Your task to perform on an android device: Open CNN.com Image 0: 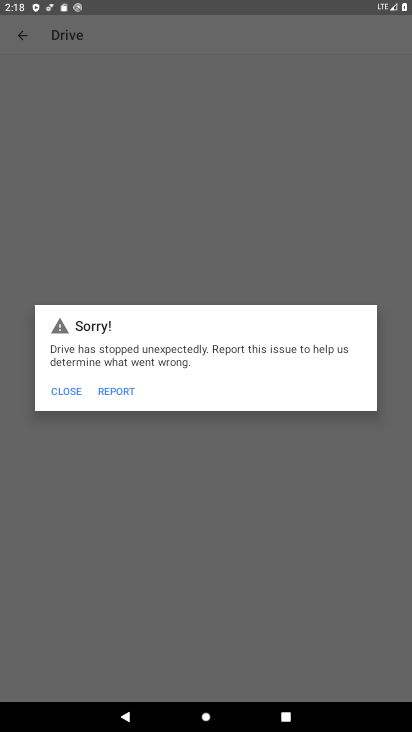
Step 0: press home button
Your task to perform on an android device: Open CNN.com Image 1: 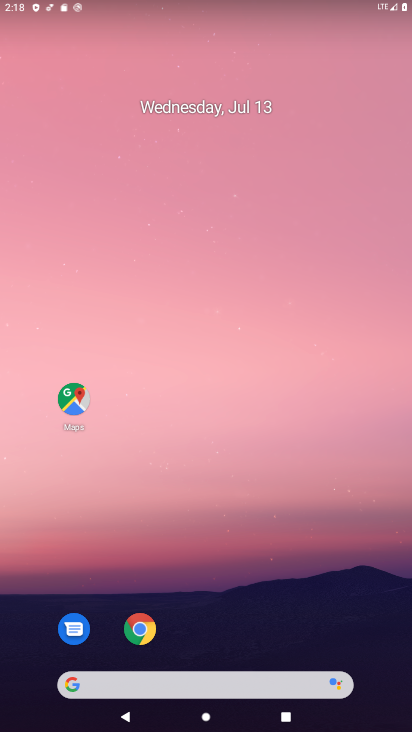
Step 1: click (150, 641)
Your task to perform on an android device: Open CNN.com Image 2: 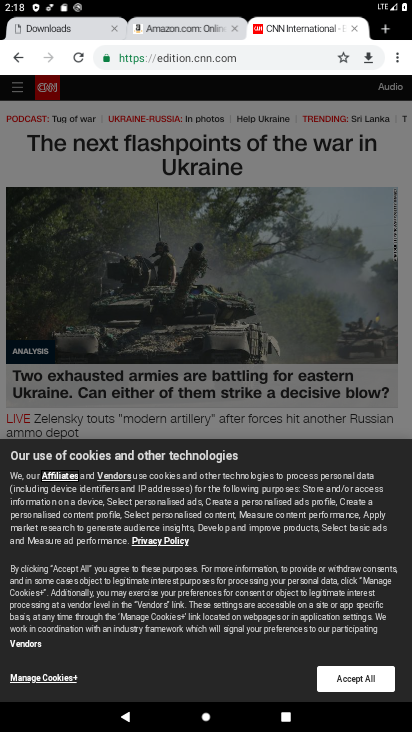
Step 2: task complete